Your task to perform on an android device: What's the weather today? Image 0: 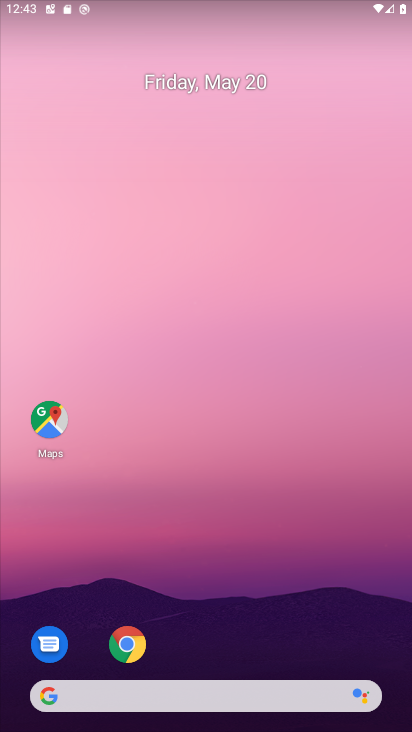
Step 0: drag from (211, 666) to (211, 331)
Your task to perform on an android device: What's the weather today? Image 1: 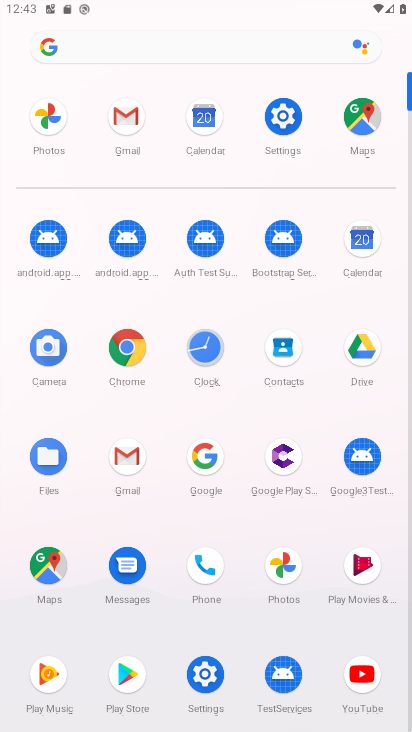
Step 1: press home button
Your task to perform on an android device: What's the weather today? Image 2: 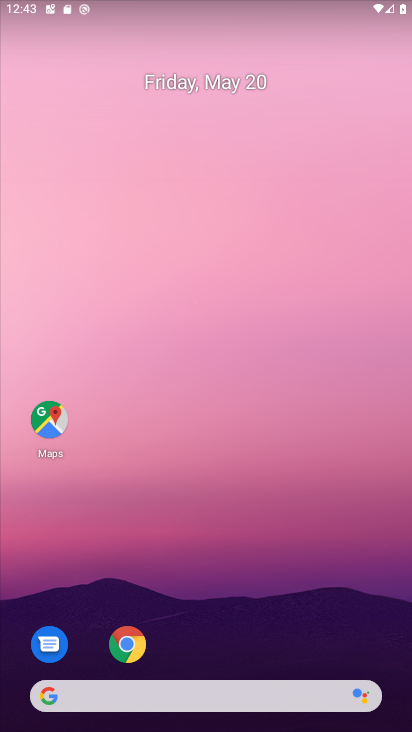
Step 2: drag from (152, 673) to (177, 405)
Your task to perform on an android device: What's the weather today? Image 3: 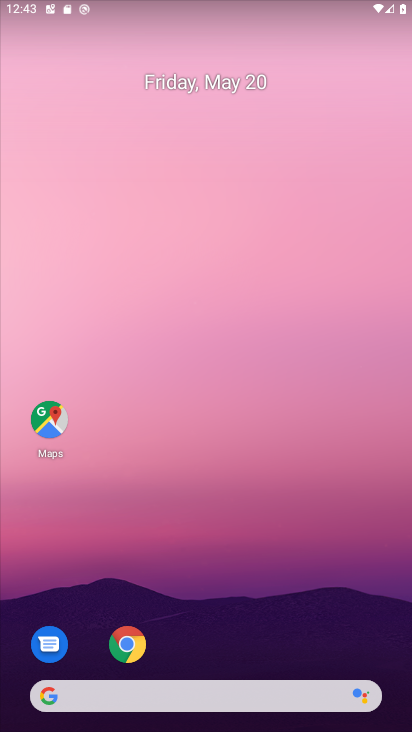
Step 3: drag from (217, 608) to (264, 329)
Your task to perform on an android device: What's the weather today? Image 4: 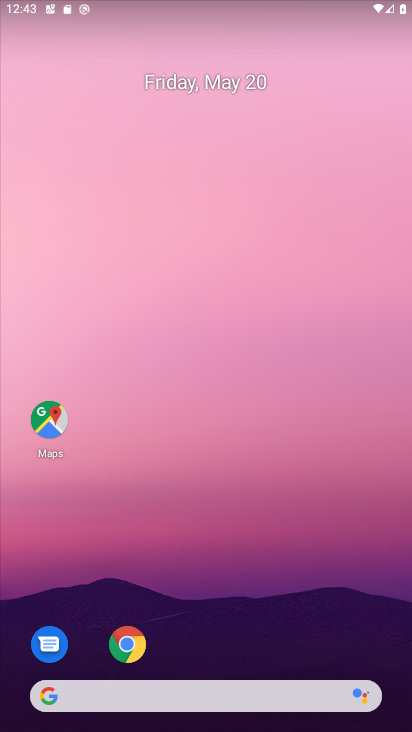
Step 4: drag from (203, 663) to (230, 224)
Your task to perform on an android device: What's the weather today? Image 5: 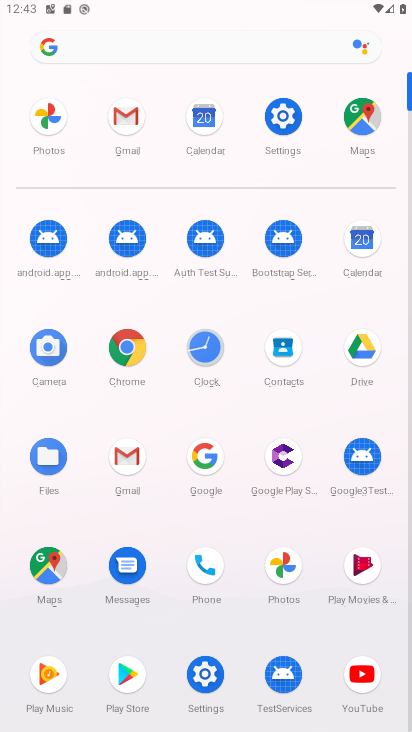
Step 5: click (206, 460)
Your task to perform on an android device: What's the weather today? Image 6: 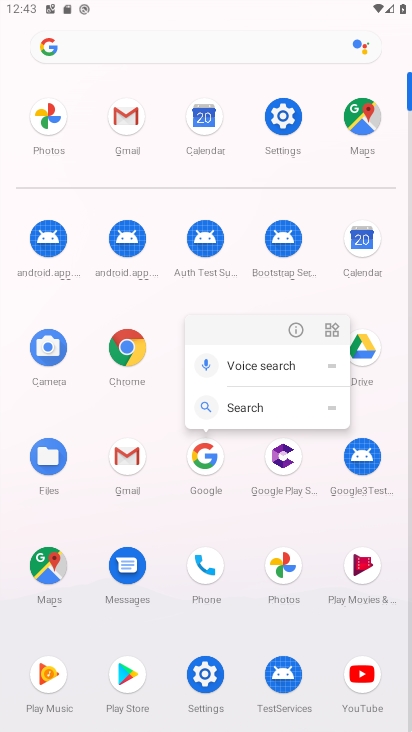
Step 6: click (206, 460)
Your task to perform on an android device: What's the weather today? Image 7: 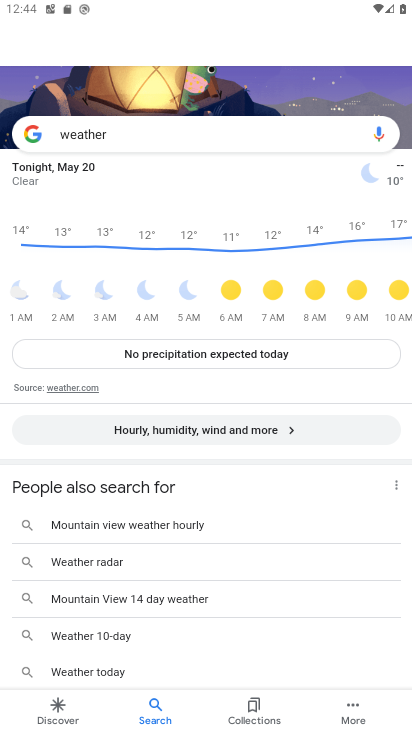
Step 7: click (241, 339)
Your task to perform on an android device: What's the weather today? Image 8: 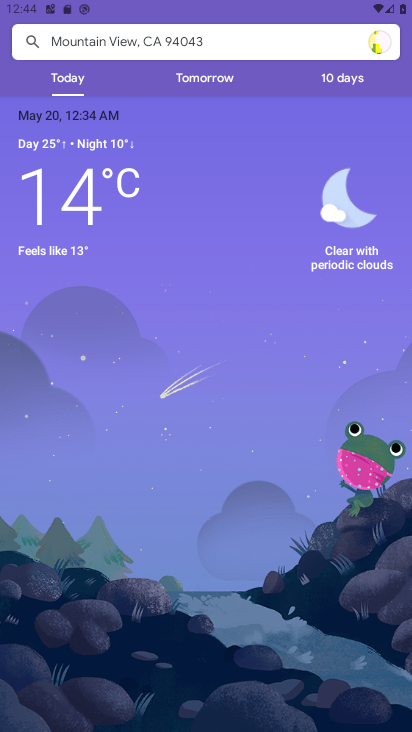
Step 8: task complete